Your task to perform on an android device: Go to Amazon Image 0: 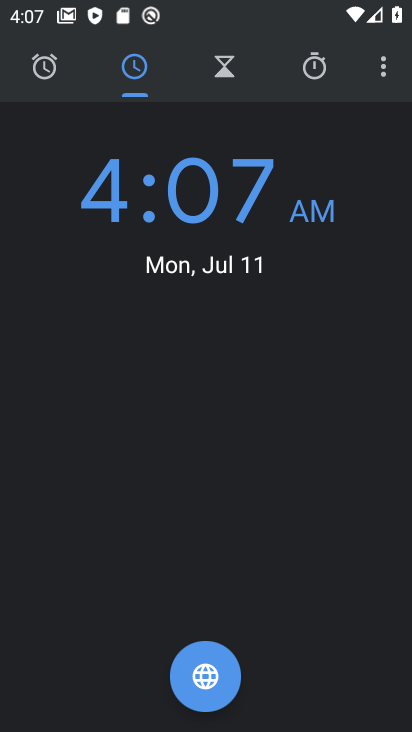
Step 0: press home button
Your task to perform on an android device: Go to Amazon Image 1: 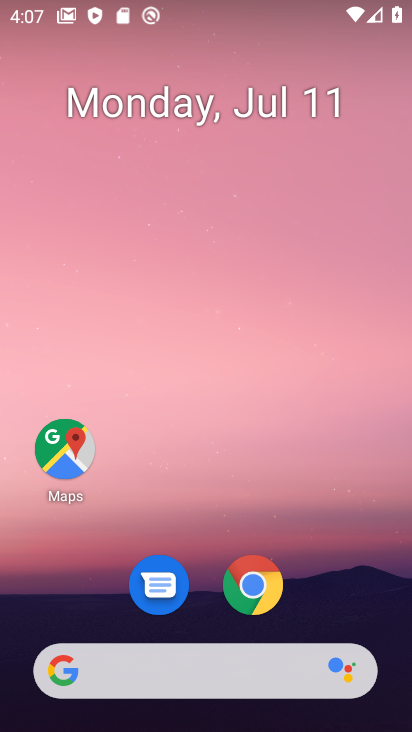
Step 1: click (260, 577)
Your task to perform on an android device: Go to Amazon Image 2: 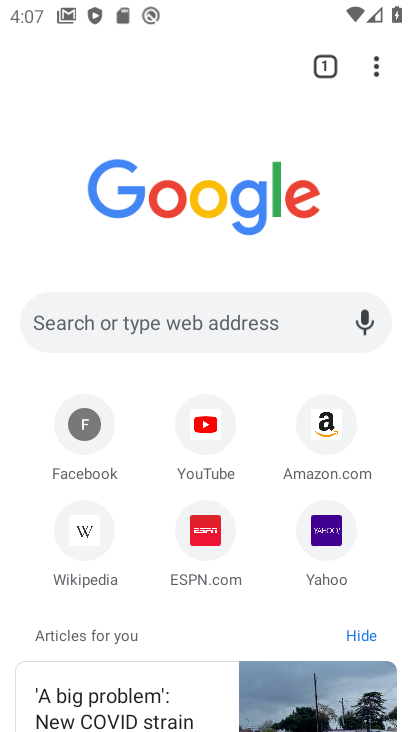
Step 2: click (328, 429)
Your task to perform on an android device: Go to Amazon Image 3: 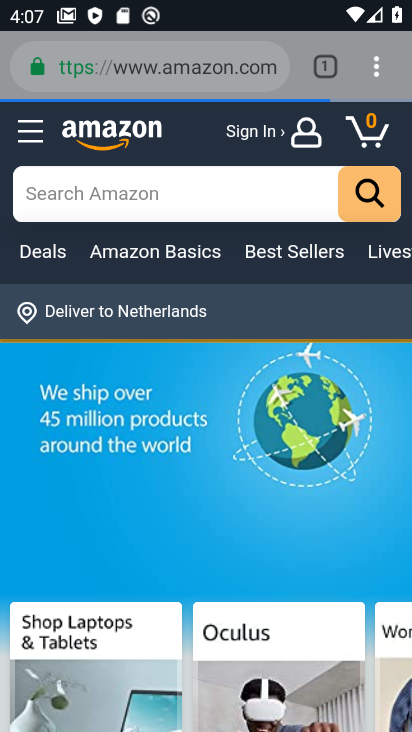
Step 3: task complete